Your task to perform on an android device: delete the emails in spam in the gmail app Image 0: 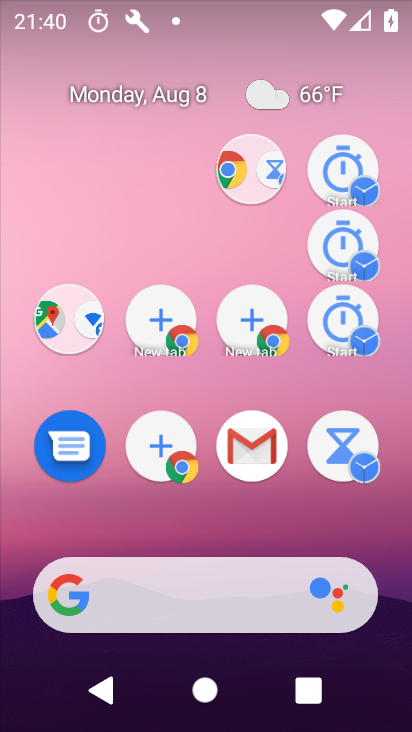
Step 0: drag from (252, 670) to (221, 290)
Your task to perform on an android device: delete the emails in spam in the gmail app Image 1: 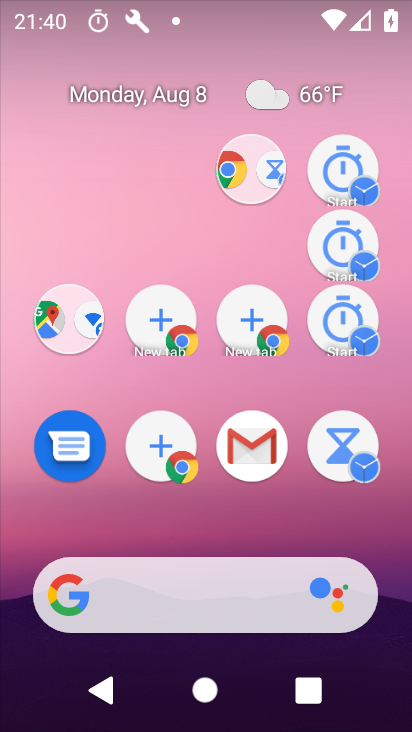
Step 1: drag from (213, 565) to (216, 27)
Your task to perform on an android device: delete the emails in spam in the gmail app Image 2: 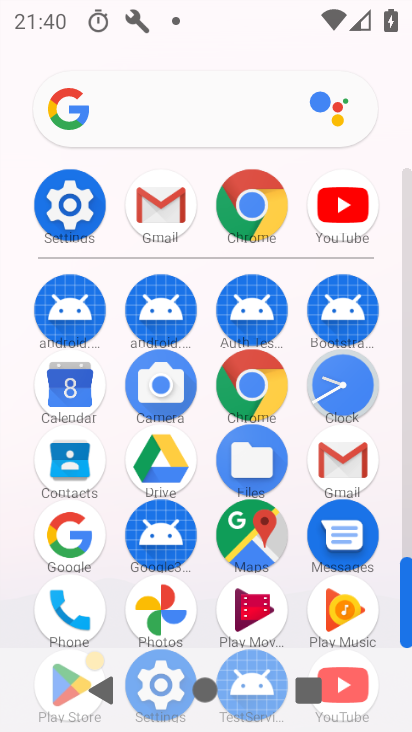
Step 2: click (345, 445)
Your task to perform on an android device: delete the emails in spam in the gmail app Image 3: 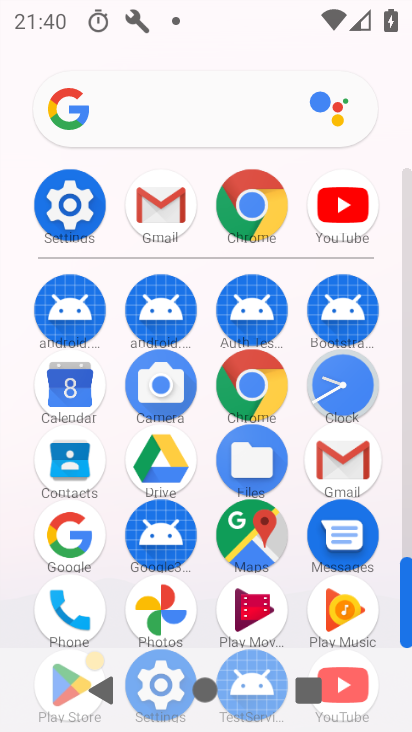
Step 3: click (345, 444)
Your task to perform on an android device: delete the emails in spam in the gmail app Image 4: 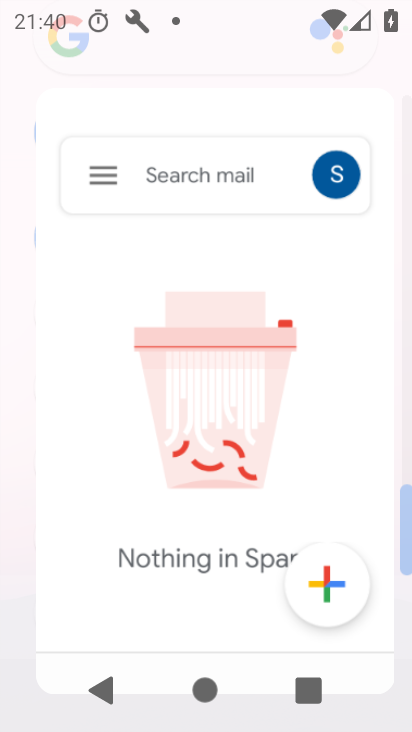
Step 4: click (345, 445)
Your task to perform on an android device: delete the emails in spam in the gmail app Image 5: 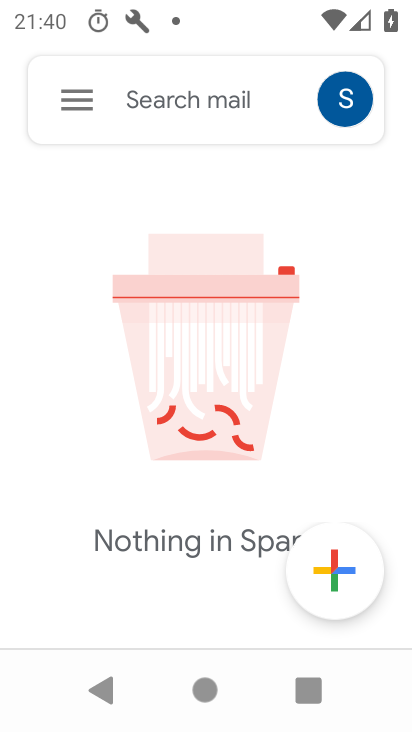
Step 5: click (68, 91)
Your task to perform on an android device: delete the emails in spam in the gmail app Image 6: 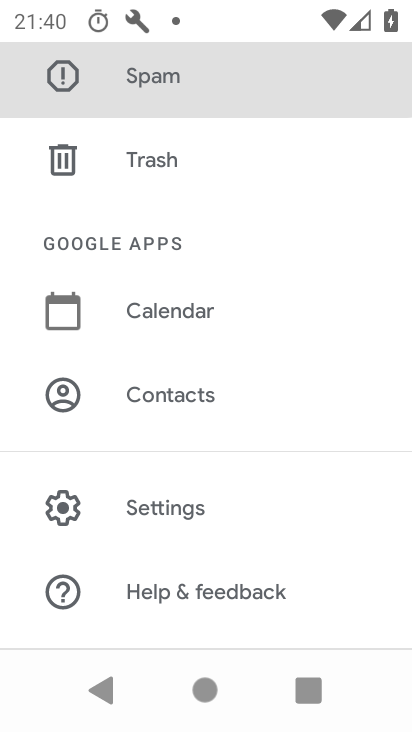
Step 6: click (180, 91)
Your task to perform on an android device: delete the emails in spam in the gmail app Image 7: 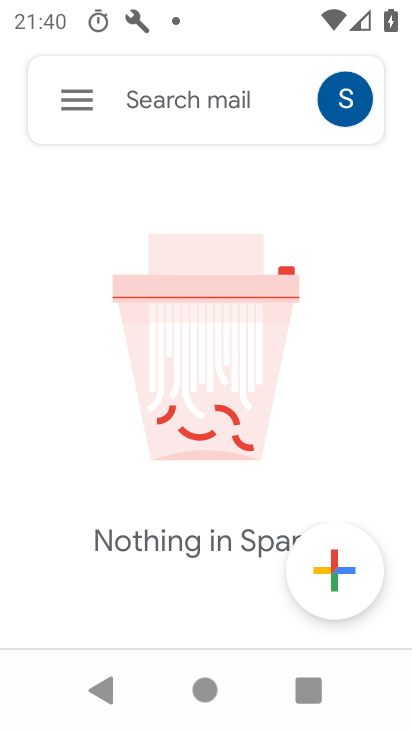
Step 7: task complete